Your task to perform on an android device: Open Chrome and go to the settings page Image 0: 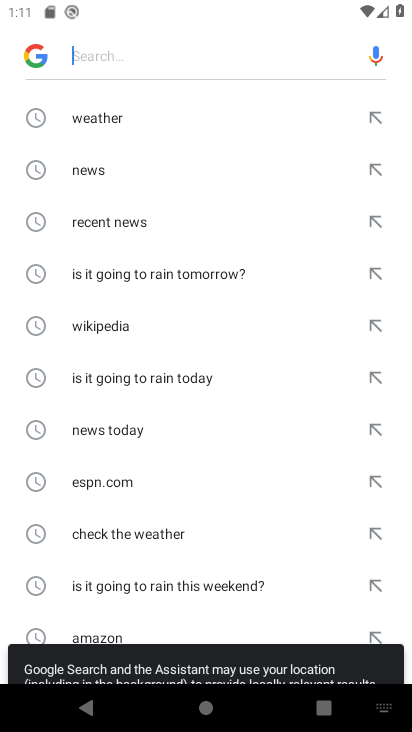
Step 0: press home button
Your task to perform on an android device: Open Chrome and go to the settings page Image 1: 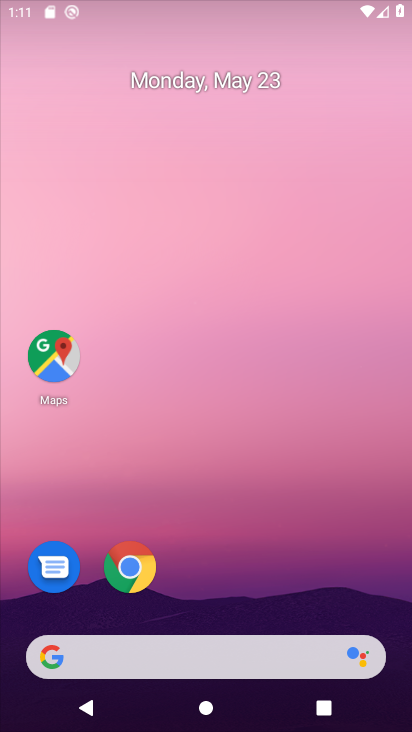
Step 1: drag from (226, 454) to (208, 197)
Your task to perform on an android device: Open Chrome and go to the settings page Image 2: 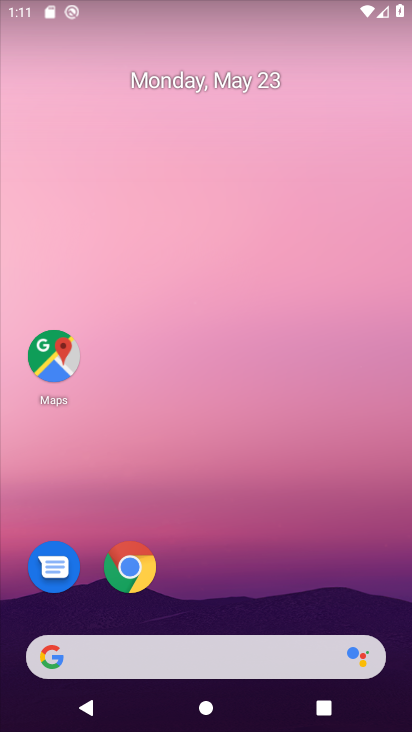
Step 2: drag from (226, 576) to (280, 9)
Your task to perform on an android device: Open Chrome and go to the settings page Image 3: 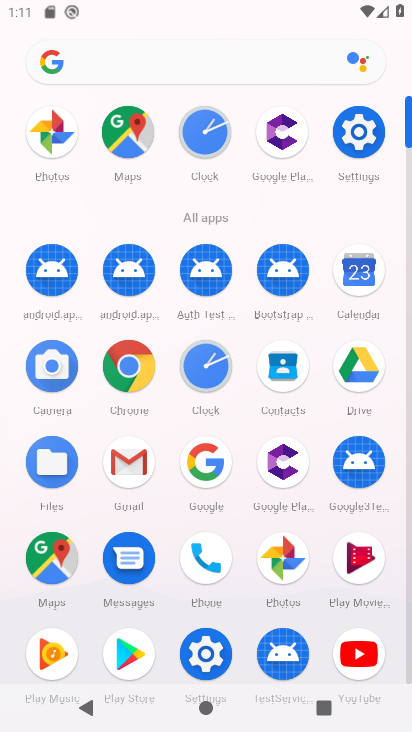
Step 3: click (148, 374)
Your task to perform on an android device: Open Chrome and go to the settings page Image 4: 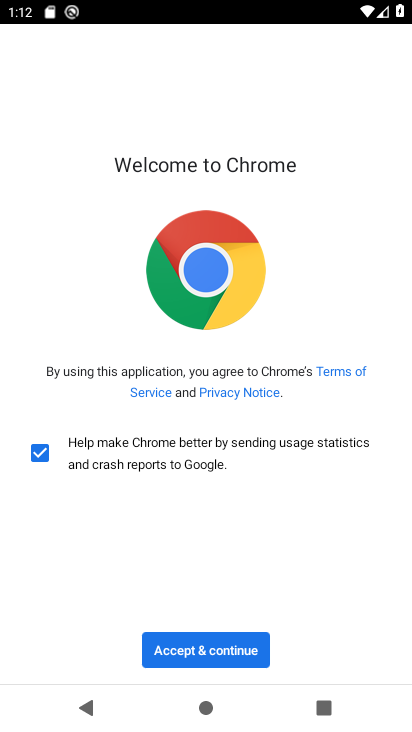
Step 4: click (251, 658)
Your task to perform on an android device: Open Chrome and go to the settings page Image 5: 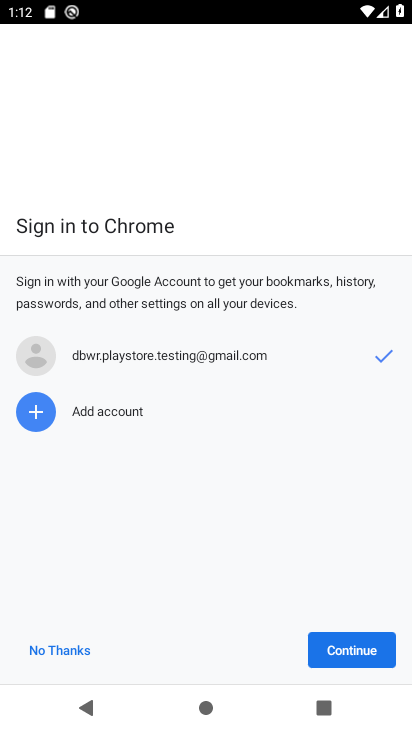
Step 5: click (337, 639)
Your task to perform on an android device: Open Chrome and go to the settings page Image 6: 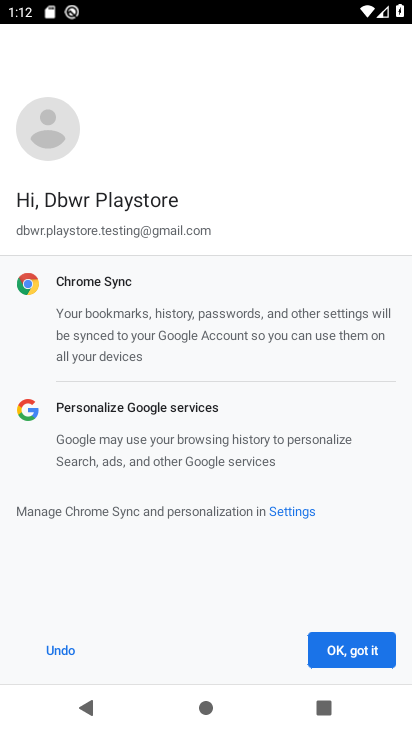
Step 6: click (334, 645)
Your task to perform on an android device: Open Chrome and go to the settings page Image 7: 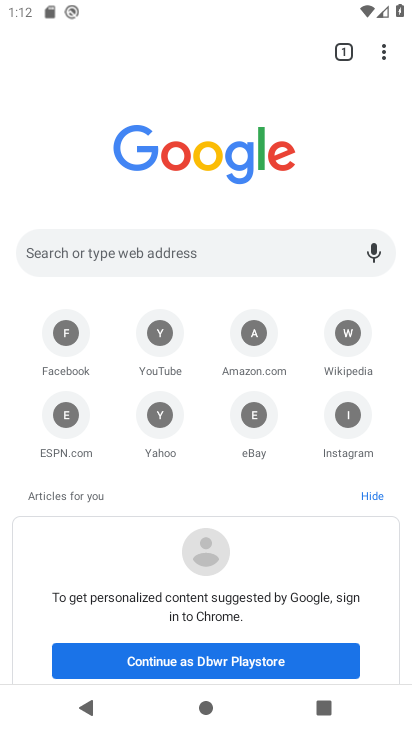
Step 7: click (389, 61)
Your task to perform on an android device: Open Chrome and go to the settings page Image 8: 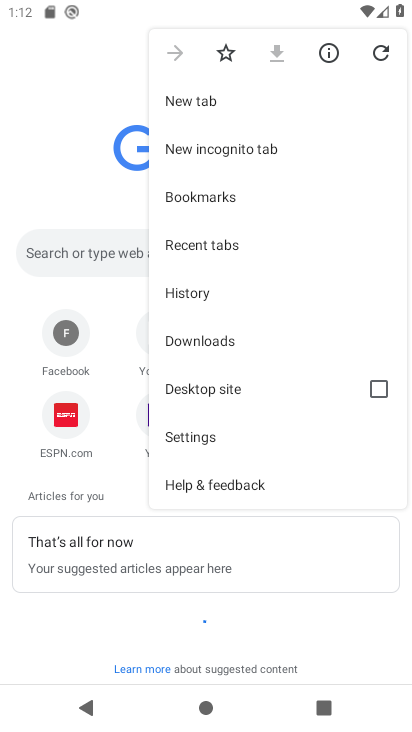
Step 8: click (224, 440)
Your task to perform on an android device: Open Chrome and go to the settings page Image 9: 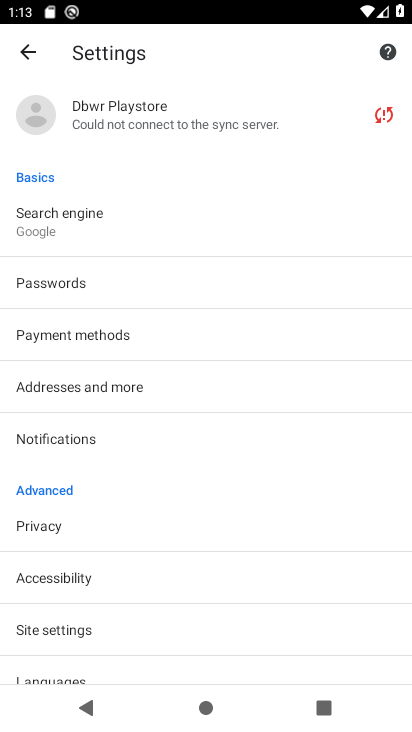
Step 9: task complete